Your task to perform on an android device: Go to Yahoo.com Image 0: 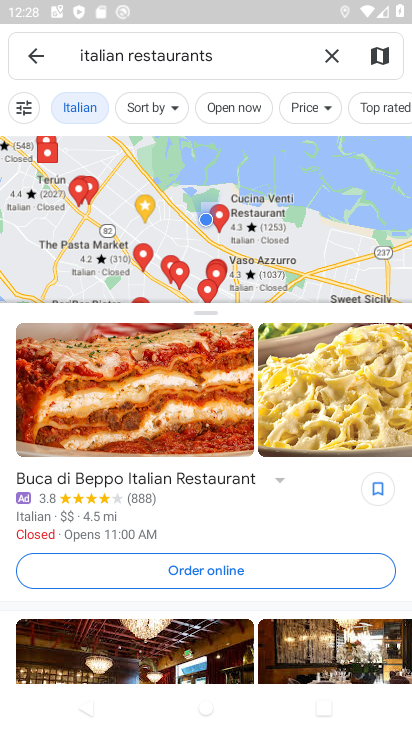
Step 0: press back button
Your task to perform on an android device: Go to Yahoo.com Image 1: 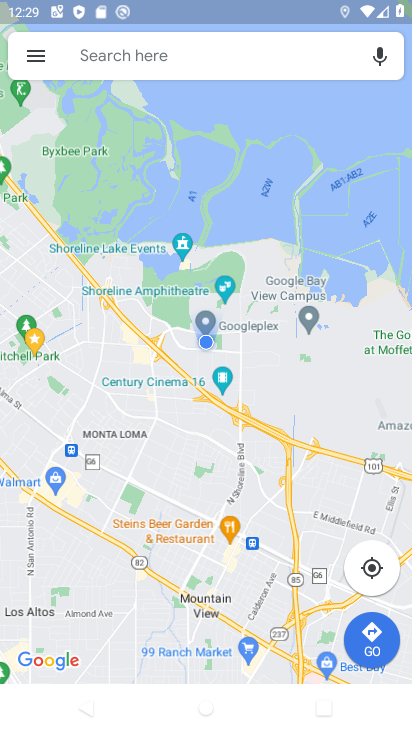
Step 1: press home button
Your task to perform on an android device: Go to Yahoo.com Image 2: 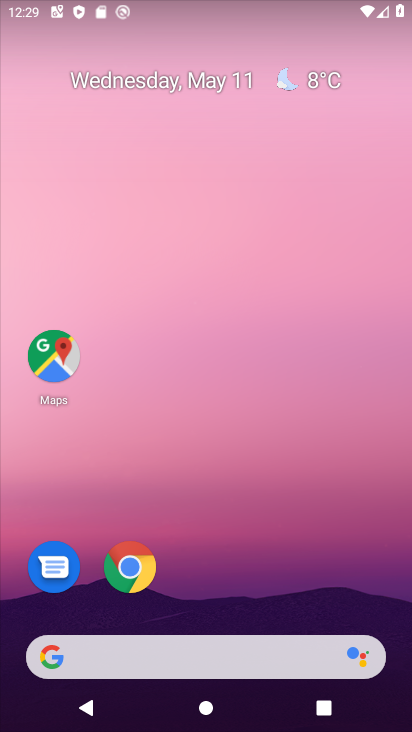
Step 2: click (137, 588)
Your task to perform on an android device: Go to Yahoo.com Image 3: 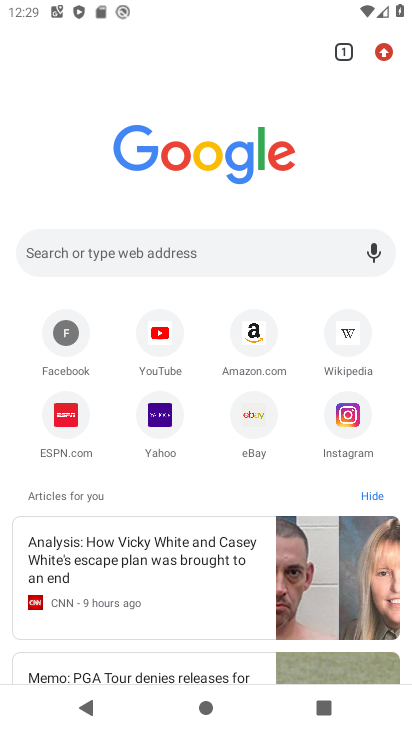
Step 3: click (155, 438)
Your task to perform on an android device: Go to Yahoo.com Image 4: 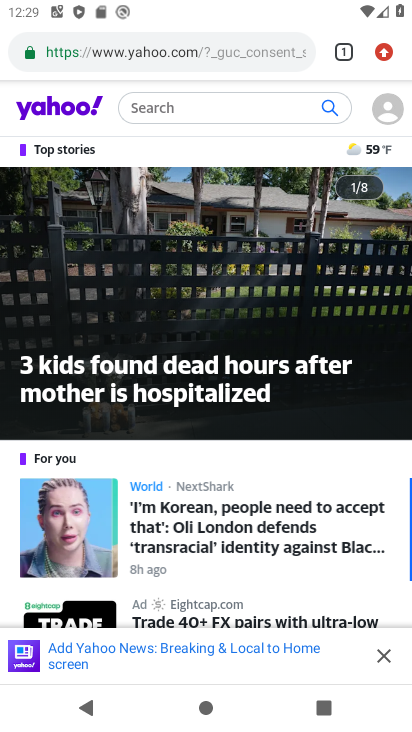
Step 4: task complete